Your task to perform on an android device: find photos in the google photos app Image 0: 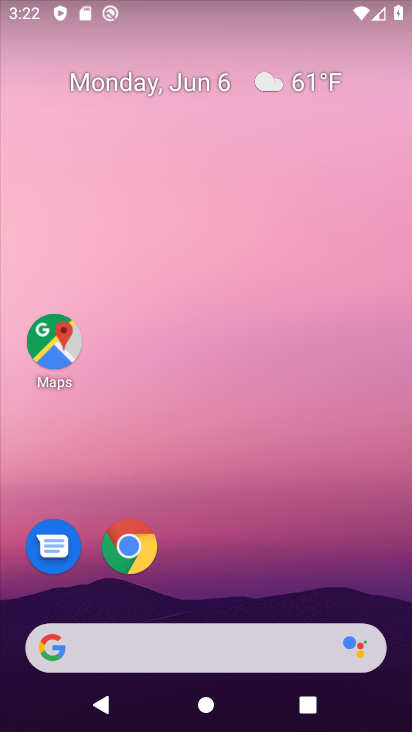
Step 0: drag from (244, 600) to (248, 6)
Your task to perform on an android device: find photos in the google photos app Image 1: 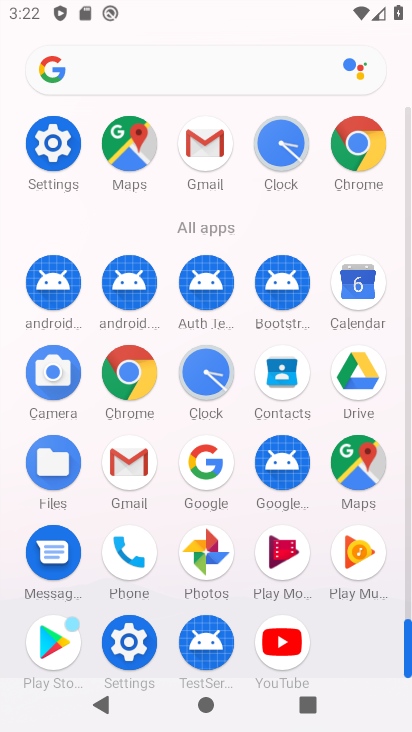
Step 1: click (210, 549)
Your task to perform on an android device: find photos in the google photos app Image 2: 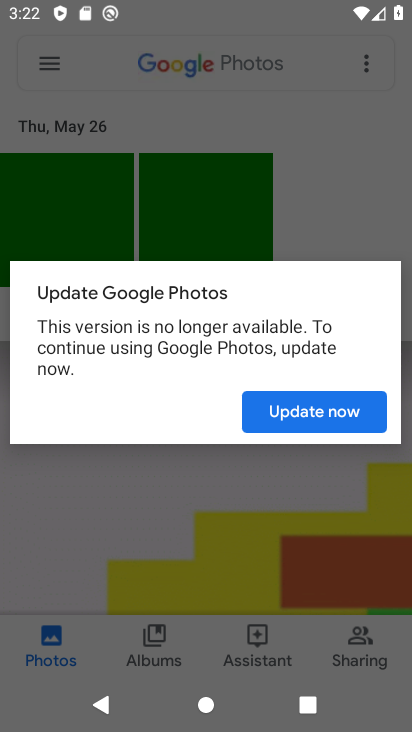
Step 2: click (293, 405)
Your task to perform on an android device: find photos in the google photos app Image 3: 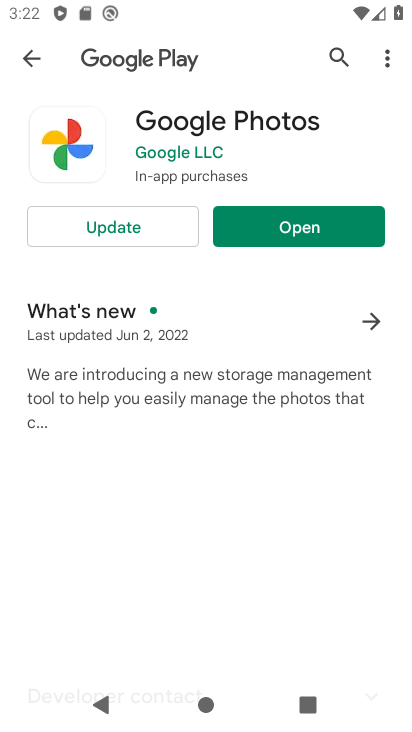
Step 3: click (115, 229)
Your task to perform on an android device: find photos in the google photos app Image 4: 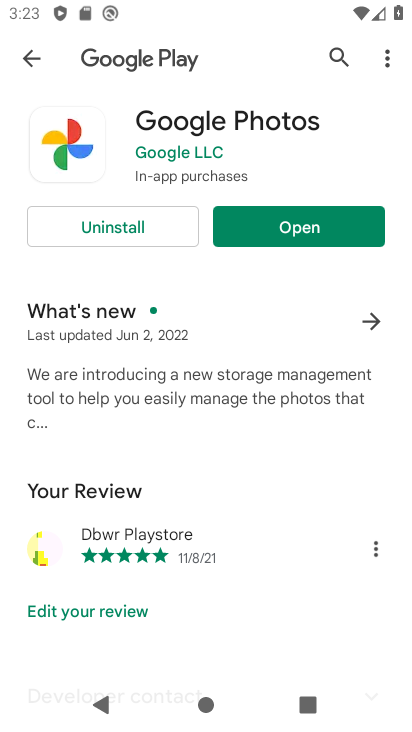
Step 4: click (249, 225)
Your task to perform on an android device: find photos in the google photos app Image 5: 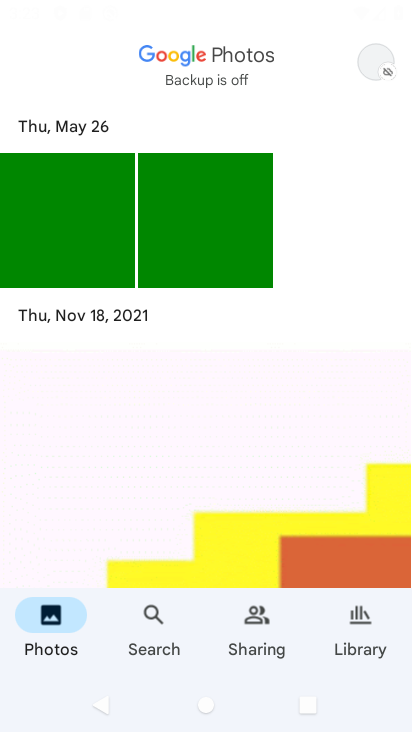
Step 5: click (49, 620)
Your task to perform on an android device: find photos in the google photos app Image 6: 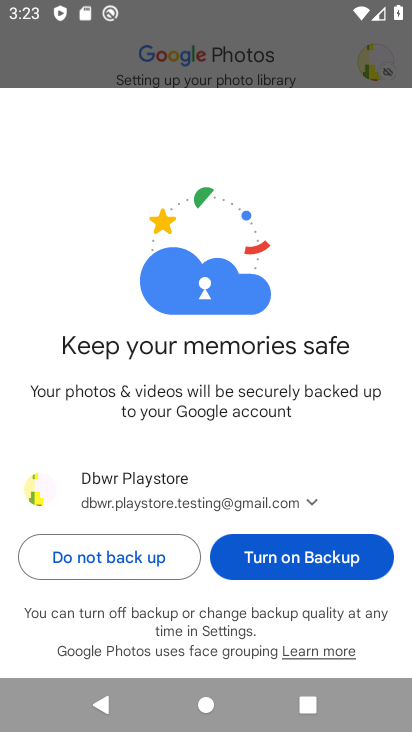
Step 6: click (132, 555)
Your task to perform on an android device: find photos in the google photos app Image 7: 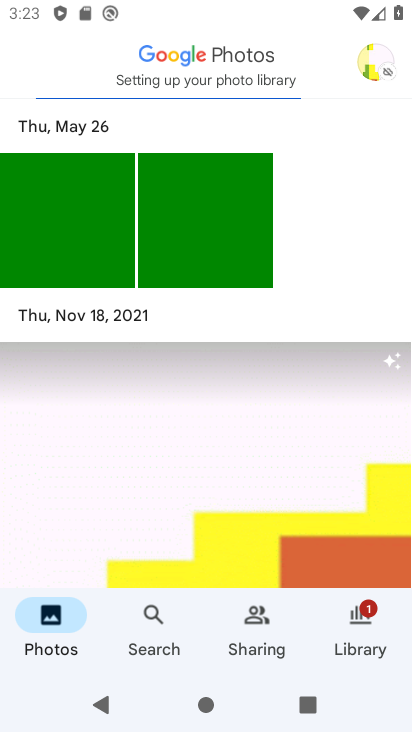
Step 7: task complete